Your task to perform on an android device: Open maps Image 0: 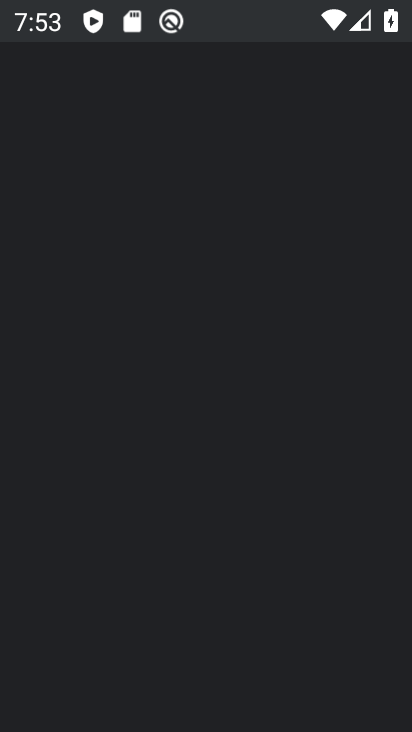
Step 0: drag from (182, 408) to (226, 81)
Your task to perform on an android device: Open maps Image 1: 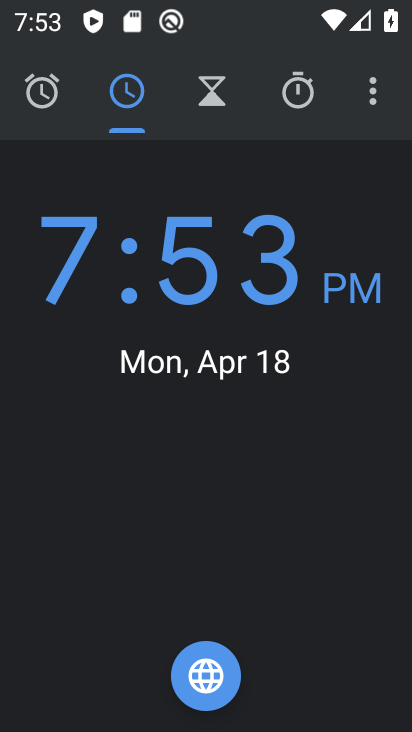
Step 1: press back button
Your task to perform on an android device: Open maps Image 2: 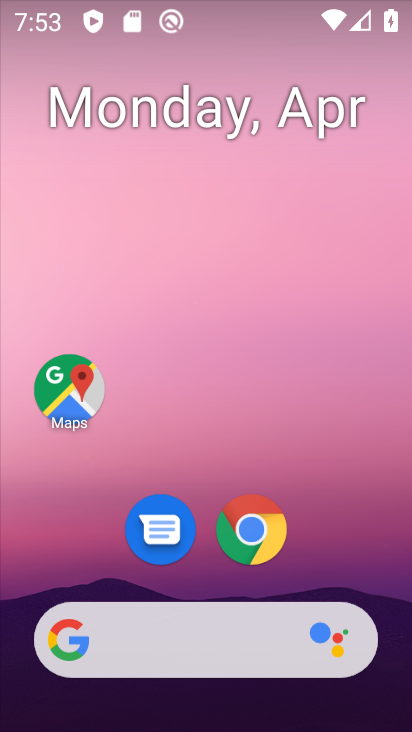
Step 2: click (68, 373)
Your task to perform on an android device: Open maps Image 3: 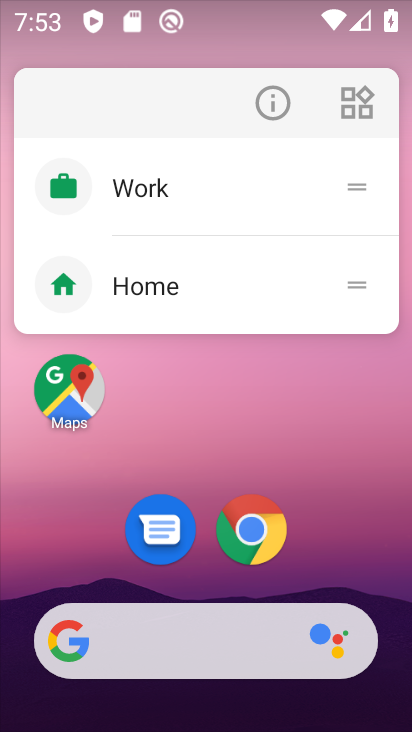
Step 3: click (68, 373)
Your task to perform on an android device: Open maps Image 4: 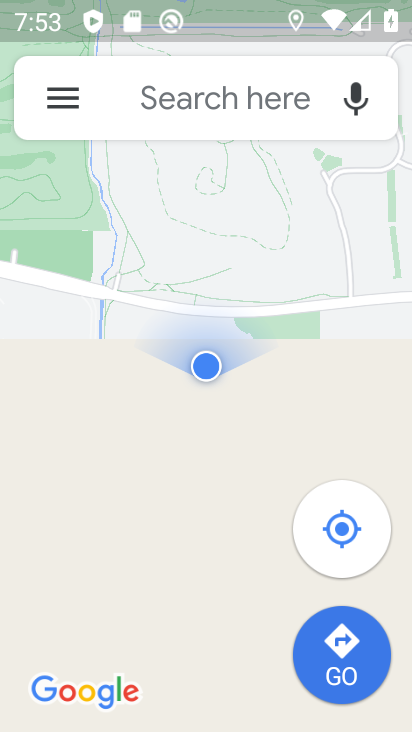
Step 4: task complete